Your task to perform on an android device: turn on sleep mode Image 0: 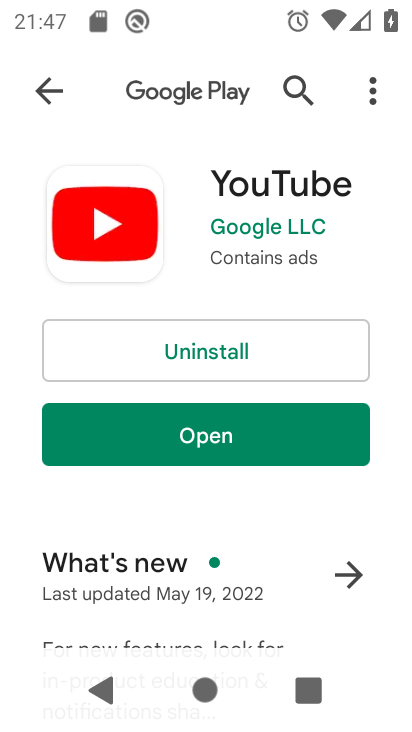
Step 0: press home button
Your task to perform on an android device: turn on sleep mode Image 1: 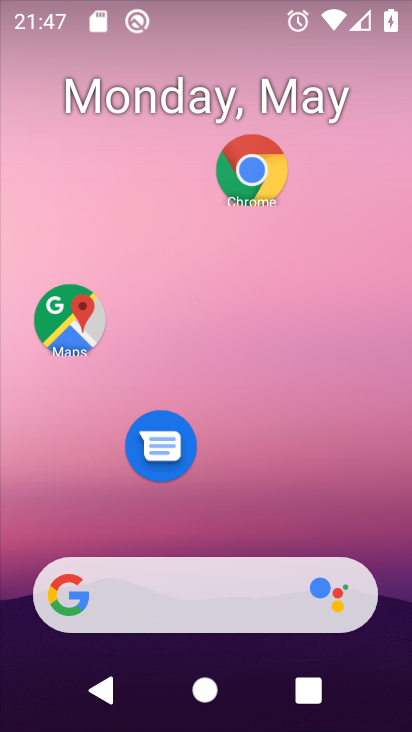
Step 1: drag from (233, 535) to (235, 58)
Your task to perform on an android device: turn on sleep mode Image 2: 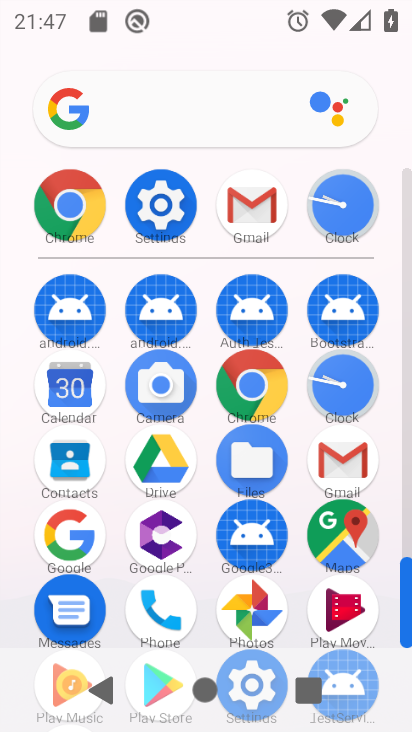
Step 2: click (155, 202)
Your task to perform on an android device: turn on sleep mode Image 3: 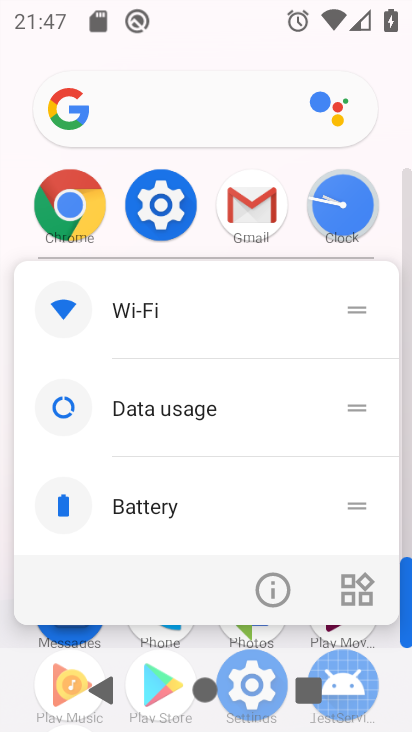
Step 3: click (162, 196)
Your task to perform on an android device: turn on sleep mode Image 4: 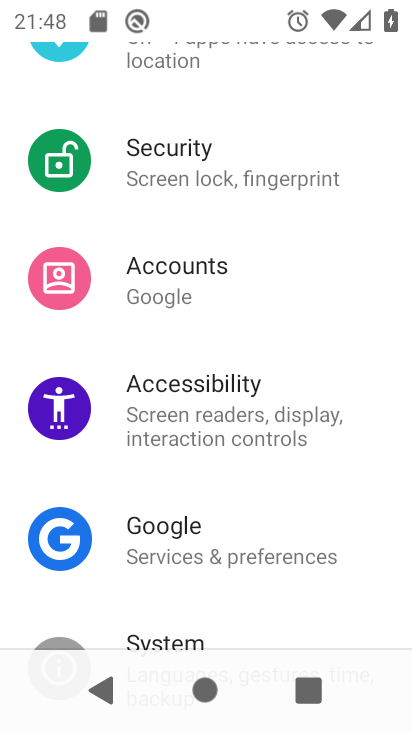
Step 4: drag from (199, 114) to (241, 623)
Your task to perform on an android device: turn on sleep mode Image 5: 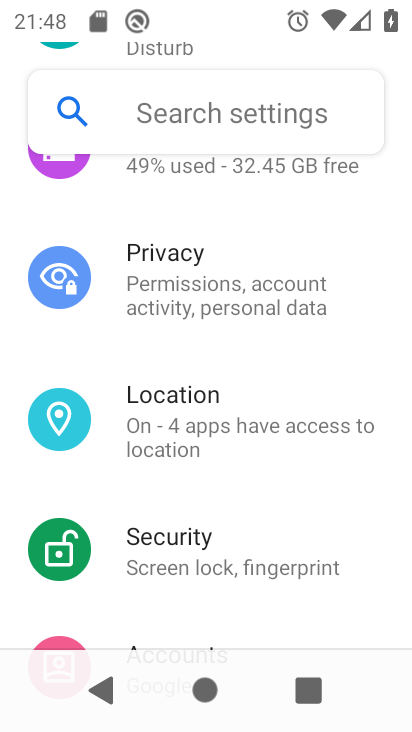
Step 5: drag from (184, 191) to (203, 583)
Your task to perform on an android device: turn on sleep mode Image 6: 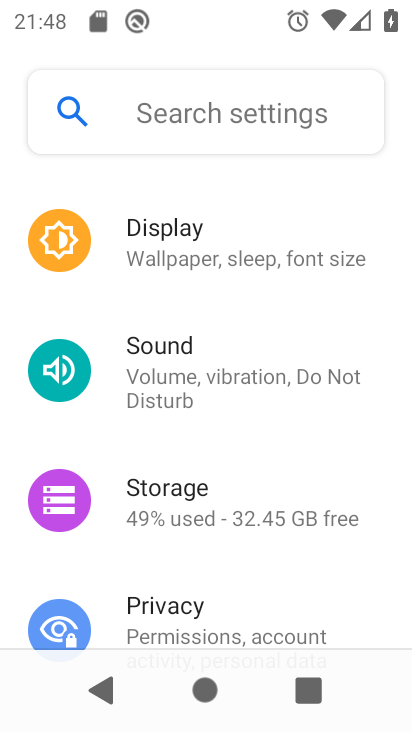
Step 6: click (215, 234)
Your task to perform on an android device: turn on sleep mode Image 7: 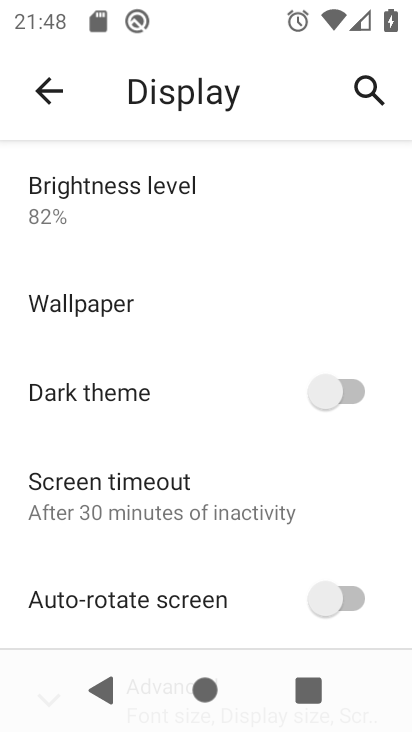
Step 7: drag from (181, 550) to (207, 229)
Your task to perform on an android device: turn on sleep mode Image 8: 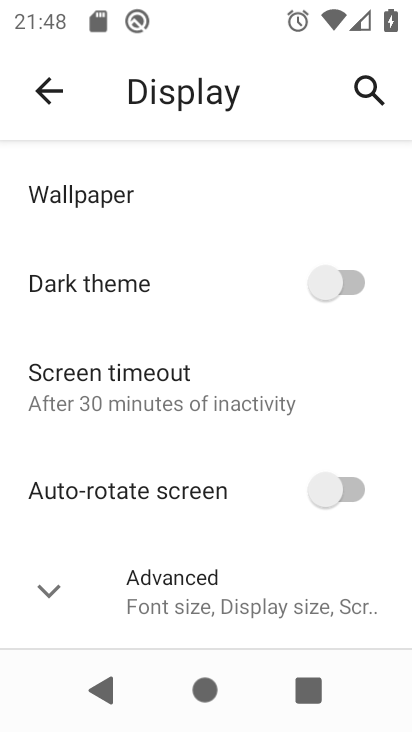
Step 8: click (49, 576)
Your task to perform on an android device: turn on sleep mode Image 9: 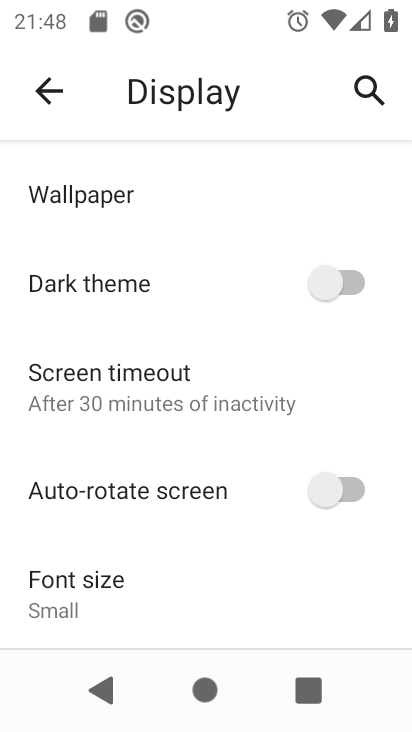
Step 9: task complete